Your task to perform on an android device: Search for razer deathadder on costco, select the first entry, and add it to the cart. Image 0: 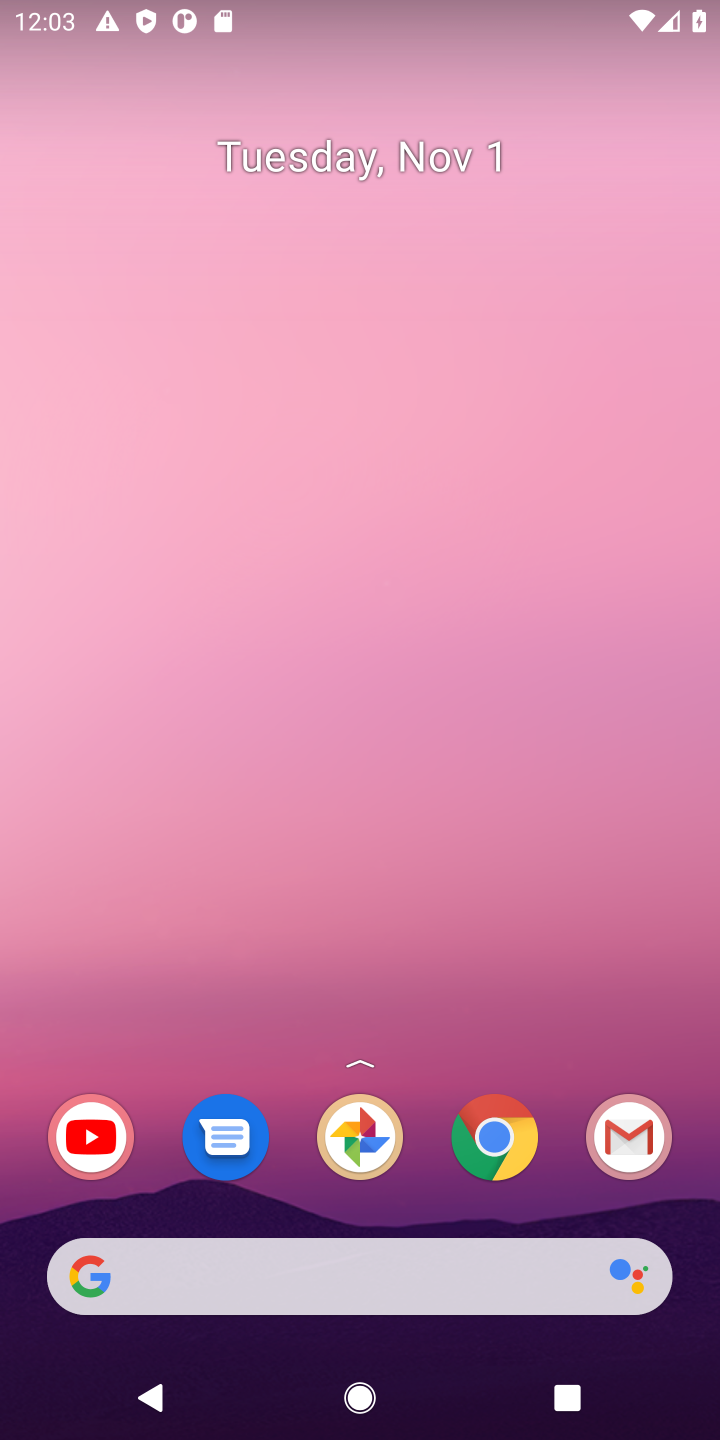
Step 0: click (498, 1140)
Your task to perform on an android device: Search for razer deathadder on costco, select the first entry, and add it to the cart. Image 1: 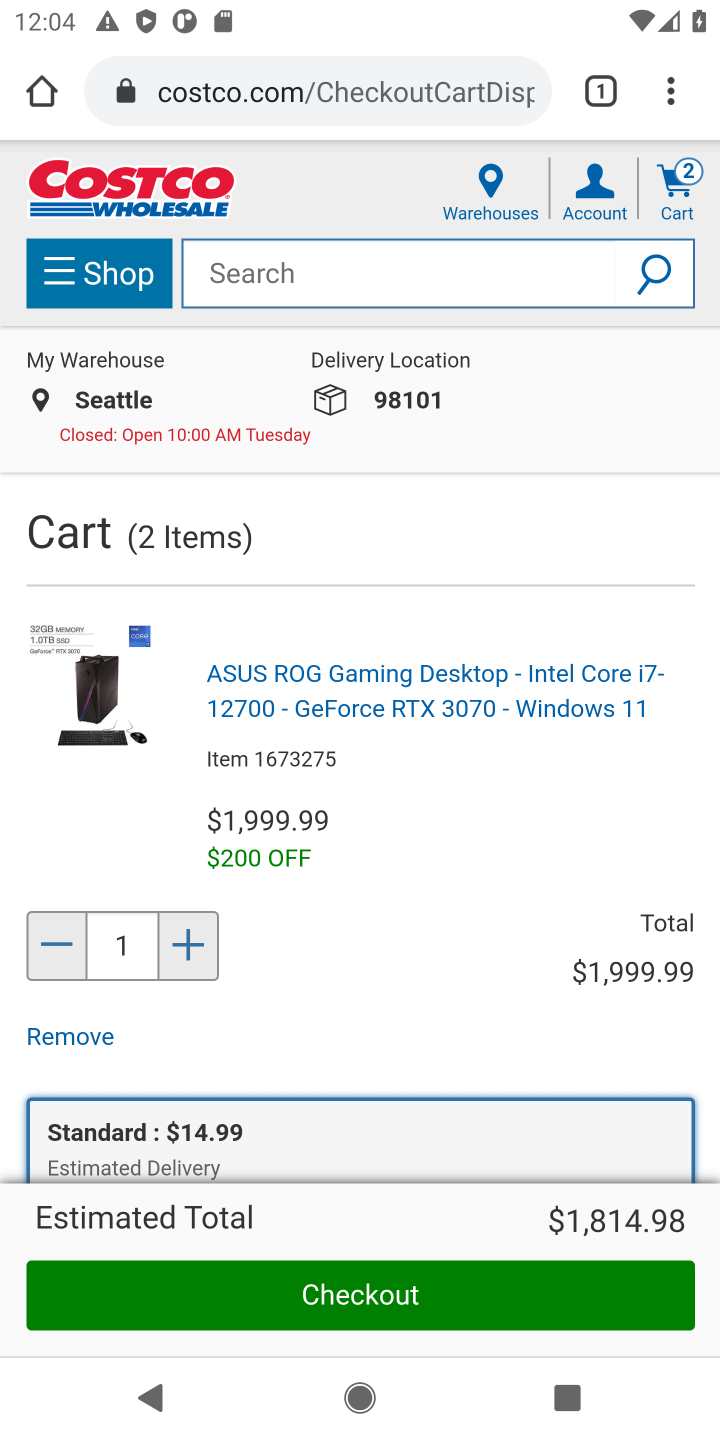
Step 1: click (355, 86)
Your task to perform on an android device: Search for razer deathadder on costco, select the first entry, and add it to the cart. Image 2: 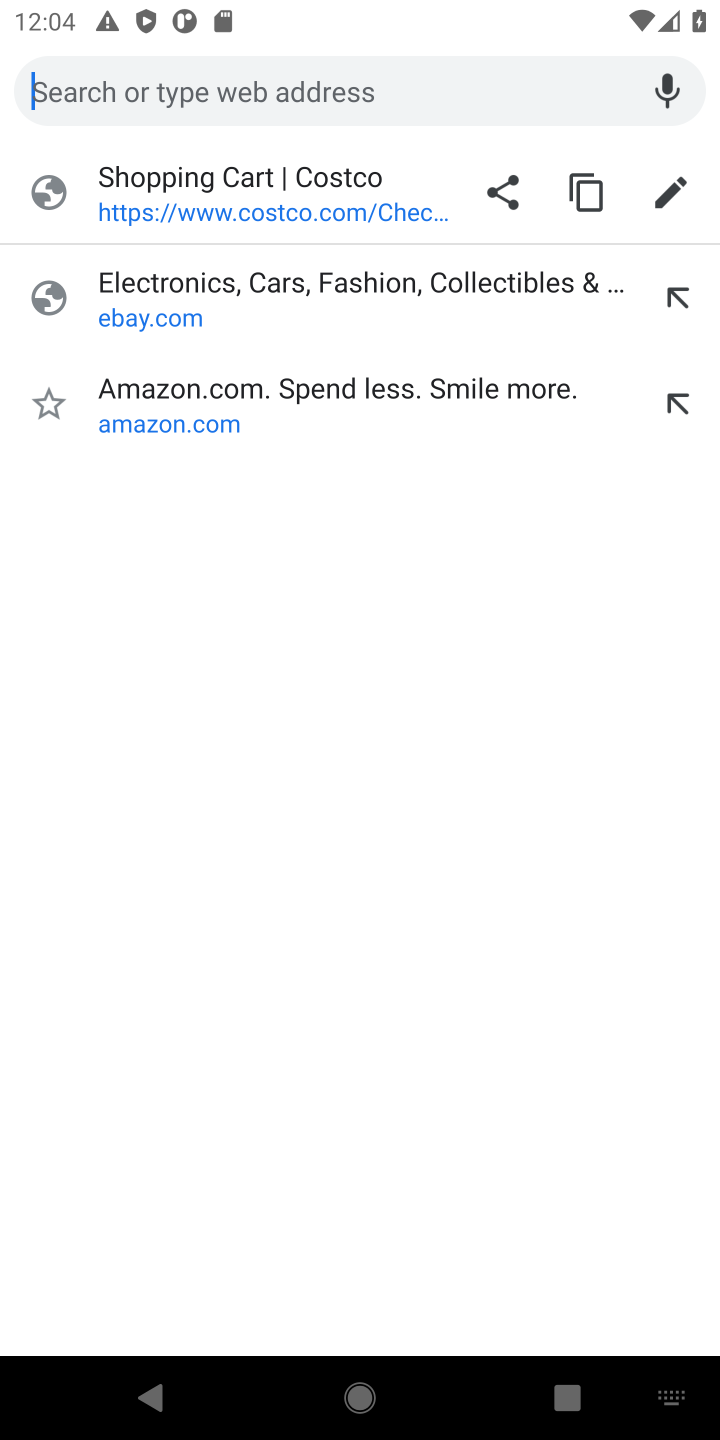
Step 2: type "costco"
Your task to perform on an android device: Search for razer deathadder on costco, select the first entry, and add it to the cart. Image 3: 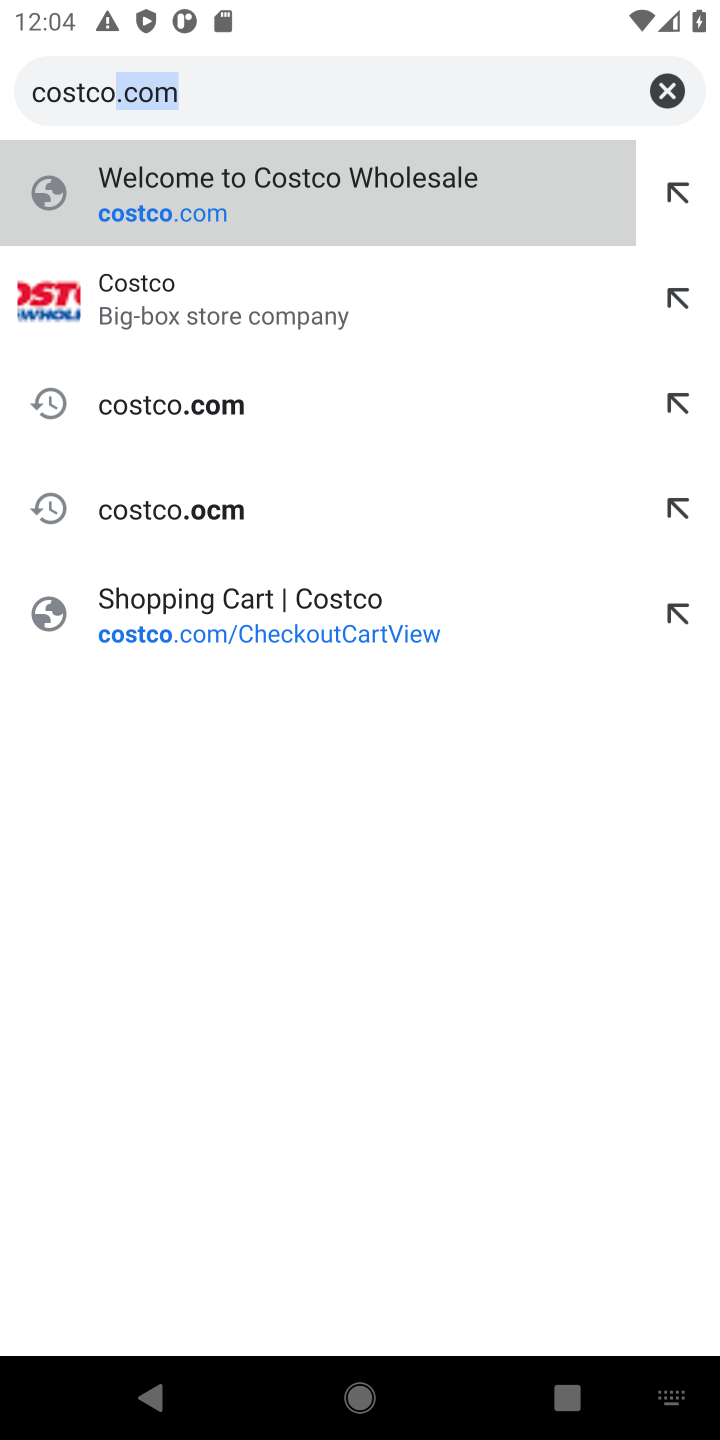
Step 3: click (113, 275)
Your task to perform on an android device: Search for razer deathadder on costco, select the first entry, and add it to the cart. Image 4: 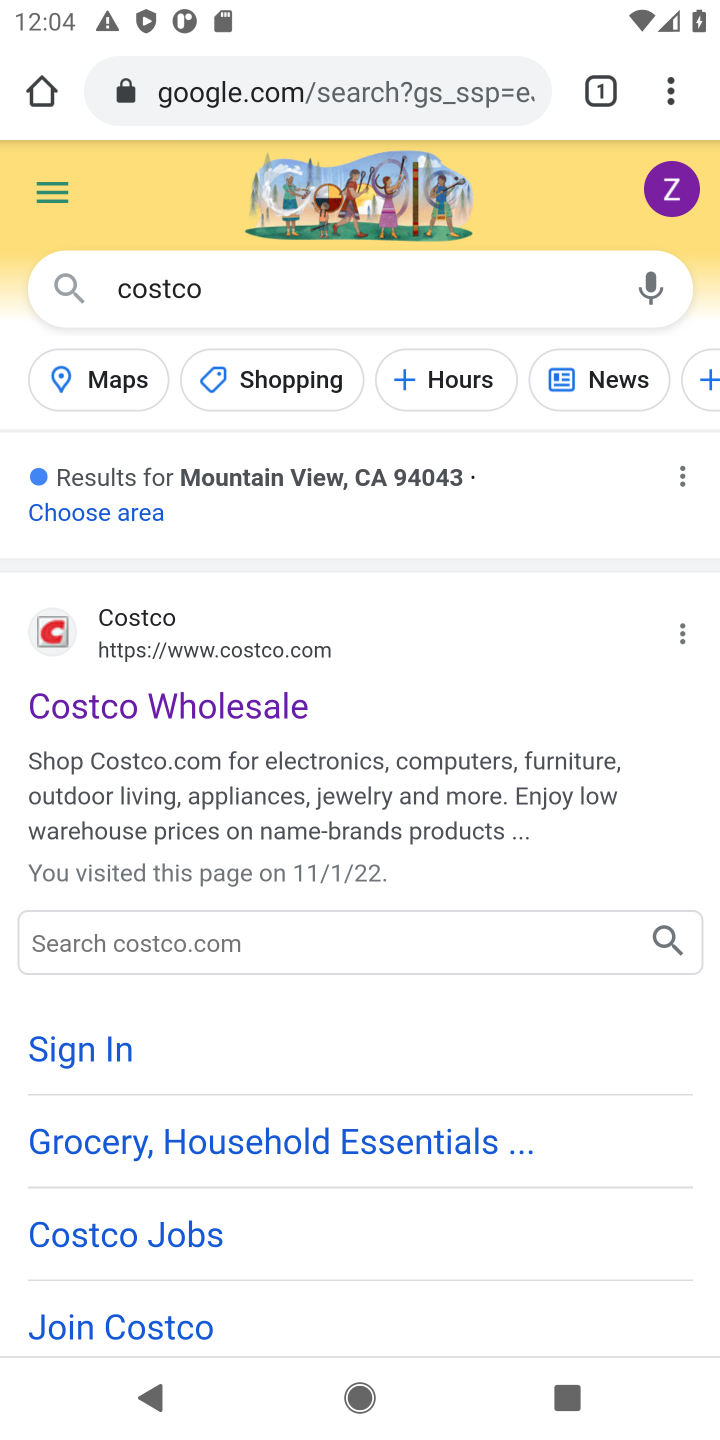
Step 4: click (92, 713)
Your task to perform on an android device: Search for razer deathadder on costco, select the first entry, and add it to the cart. Image 5: 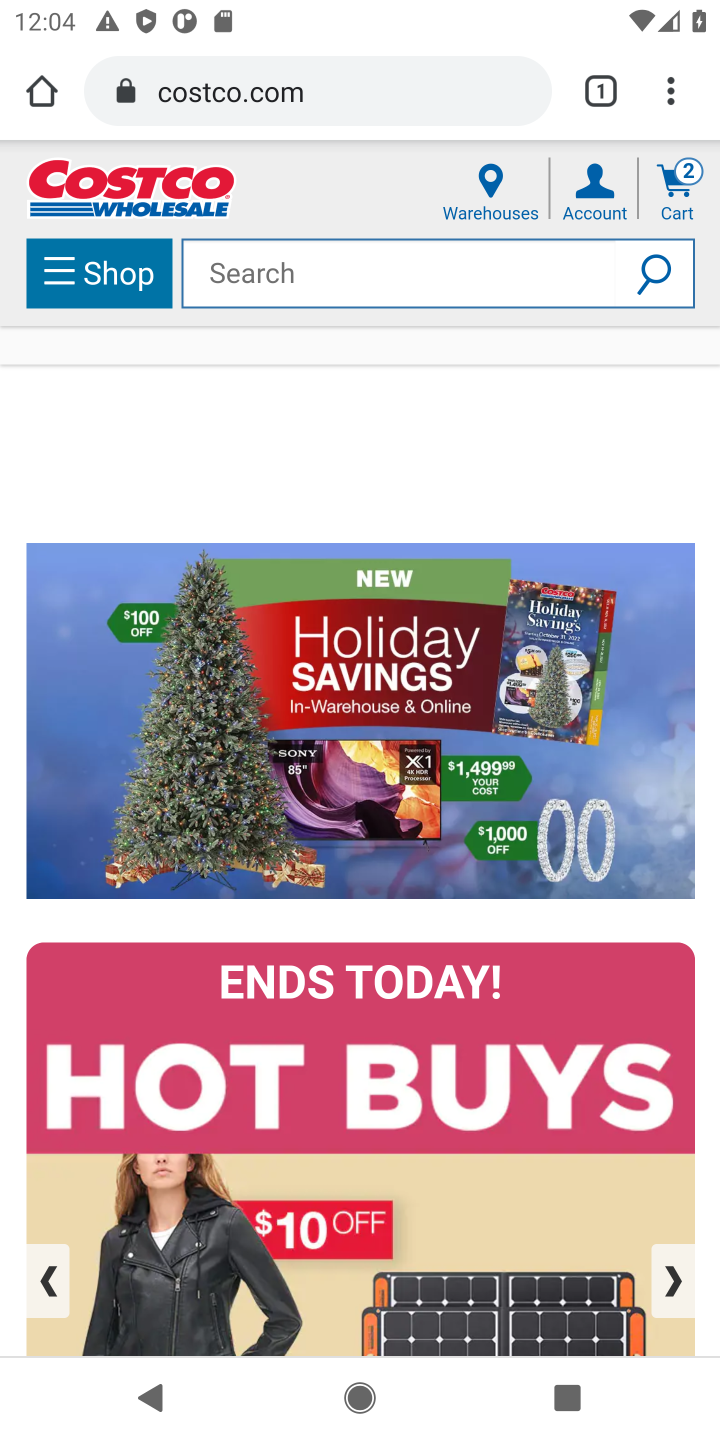
Step 5: click (339, 252)
Your task to perform on an android device: Search for razer deathadder on costco, select the first entry, and add it to the cart. Image 6: 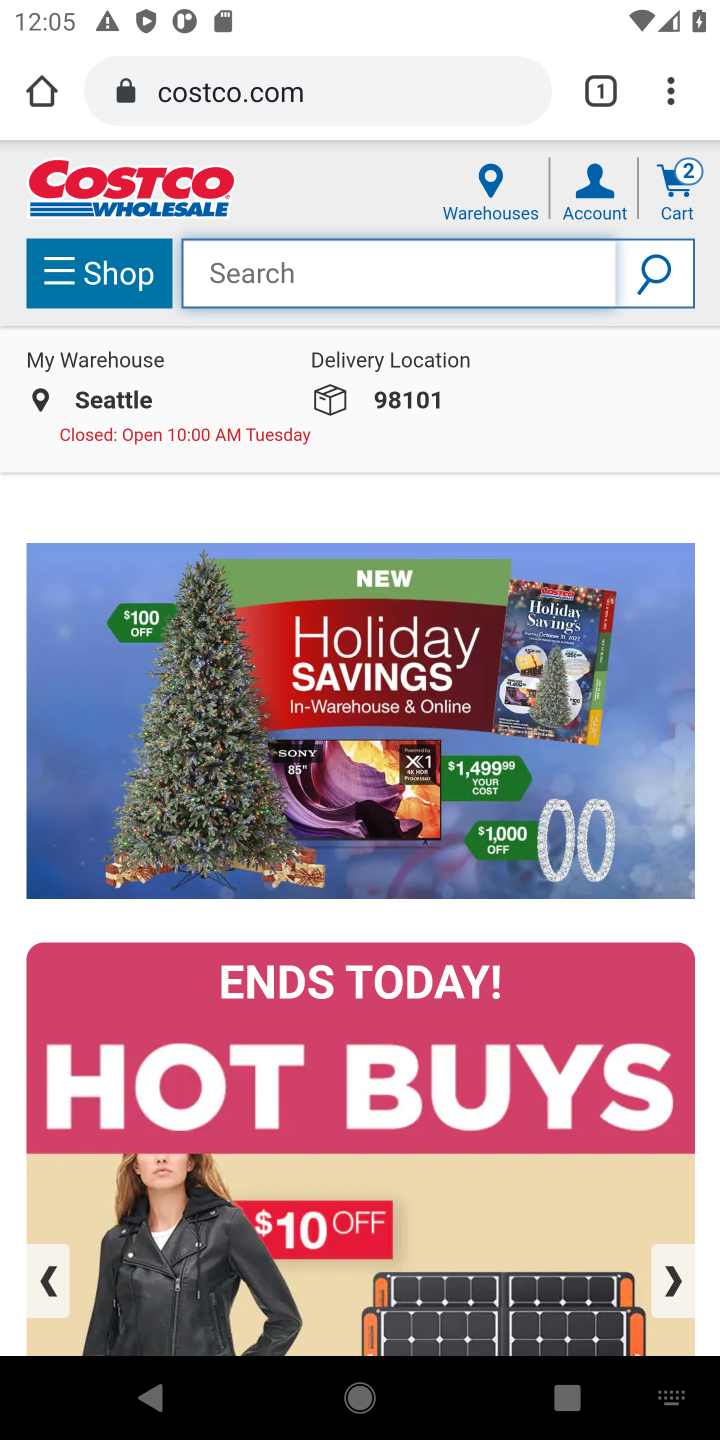
Step 6: type "razer deathadder"
Your task to perform on an android device: Search for razer deathadder on costco, select the first entry, and add it to the cart. Image 7: 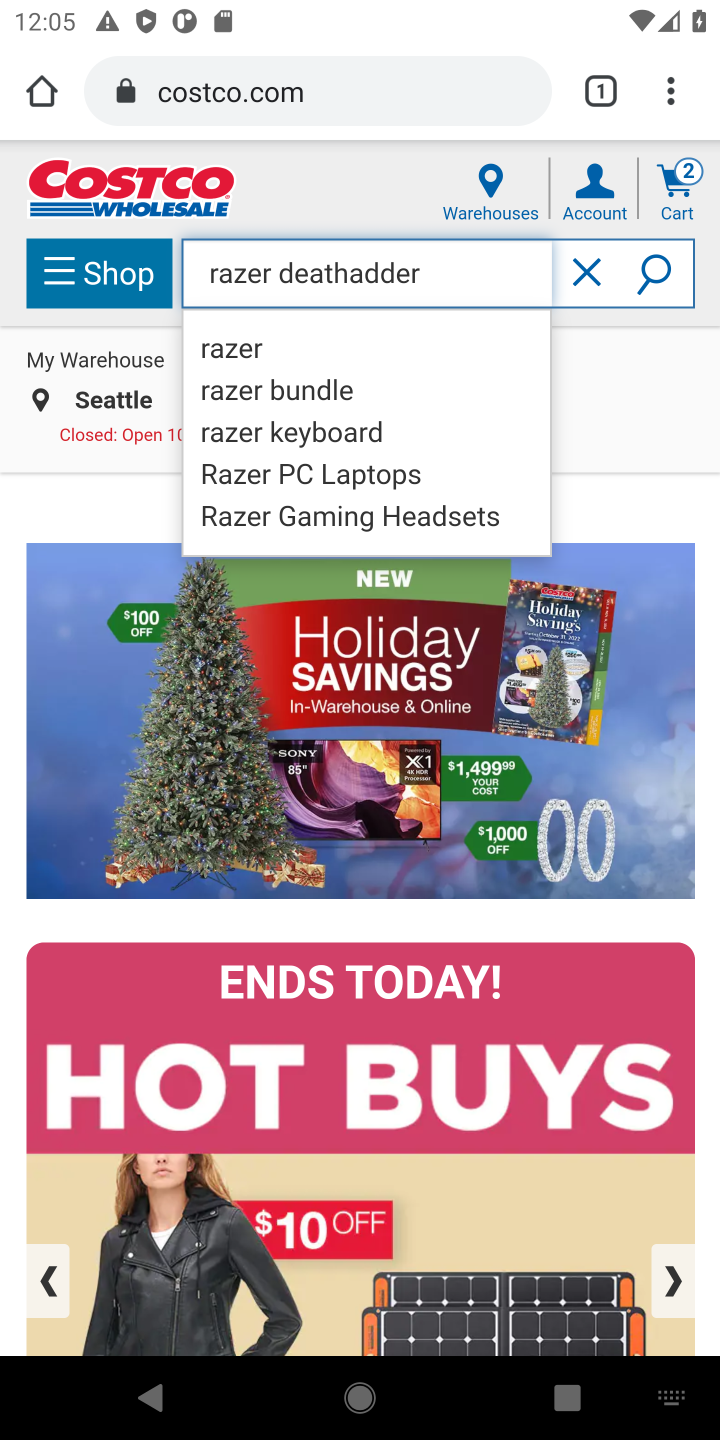
Step 7: click (647, 277)
Your task to perform on an android device: Search for razer deathadder on costco, select the first entry, and add it to the cart. Image 8: 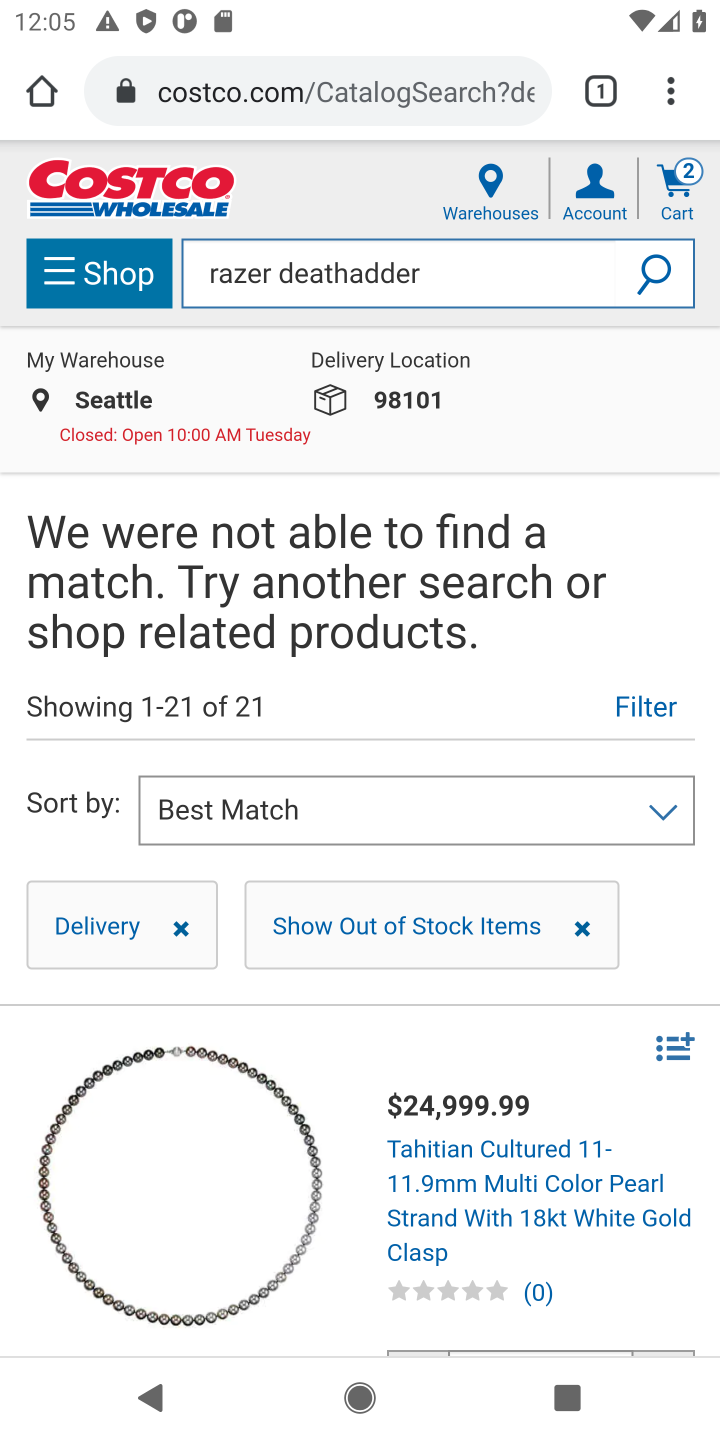
Step 8: task complete